Your task to perform on an android device: change timer sound Image 0: 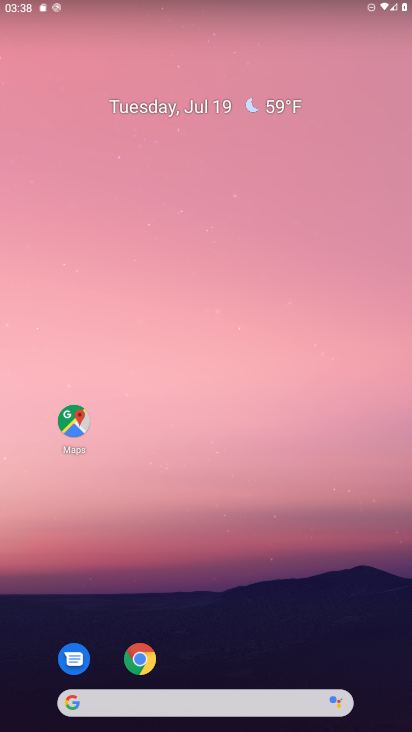
Step 0: drag from (212, 713) to (278, 88)
Your task to perform on an android device: change timer sound Image 1: 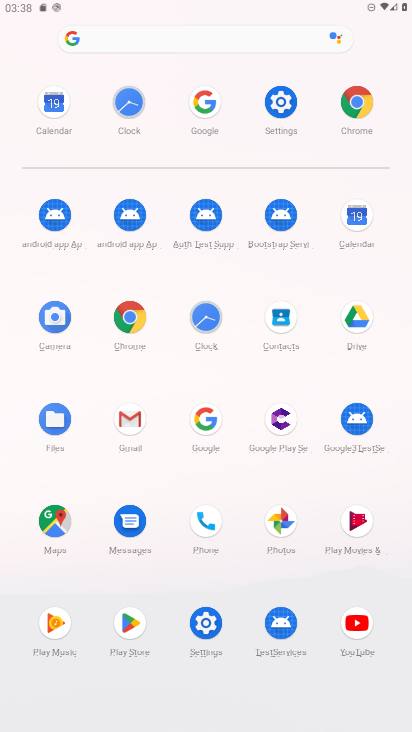
Step 1: click (207, 317)
Your task to perform on an android device: change timer sound Image 2: 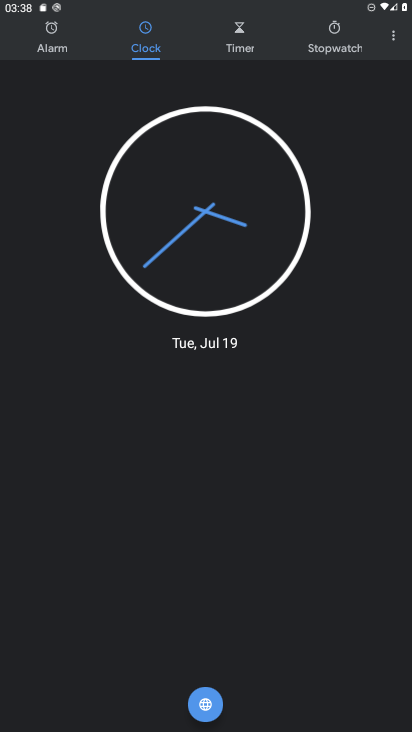
Step 2: click (394, 37)
Your task to perform on an android device: change timer sound Image 3: 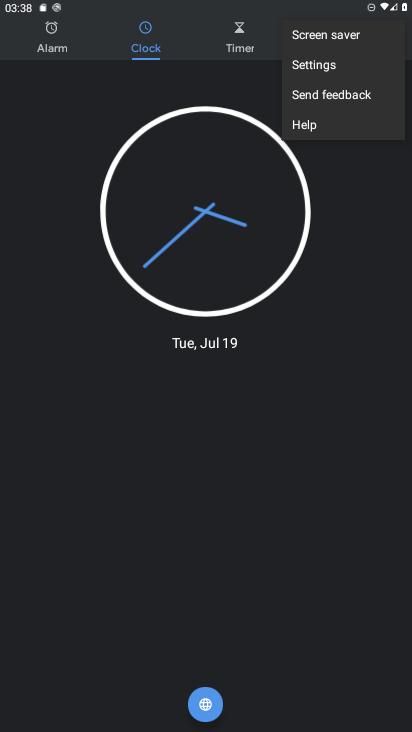
Step 3: click (329, 67)
Your task to perform on an android device: change timer sound Image 4: 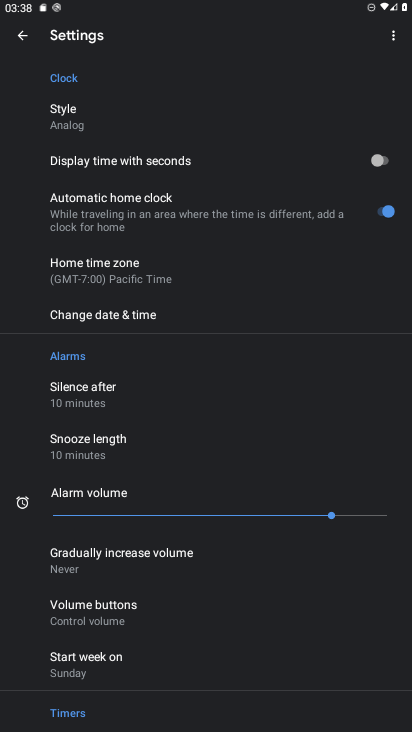
Step 4: drag from (121, 641) to (189, 388)
Your task to perform on an android device: change timer sound Image 5: 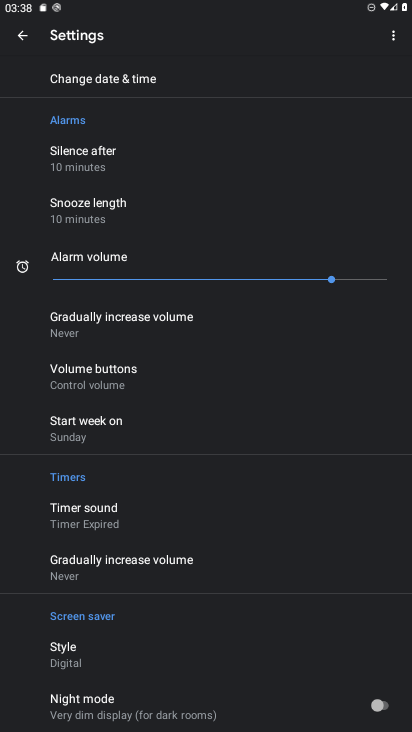
Step 5: click (101, 517)
Your task to perform on an android device: change timer sound Image 6: 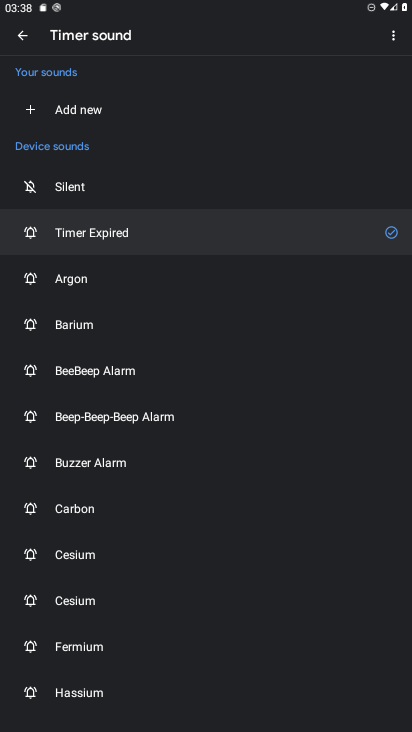
Step 6: drag from (71, 659) to (167, 287)
Your task to perform on an android device: change timer sound Image 7: 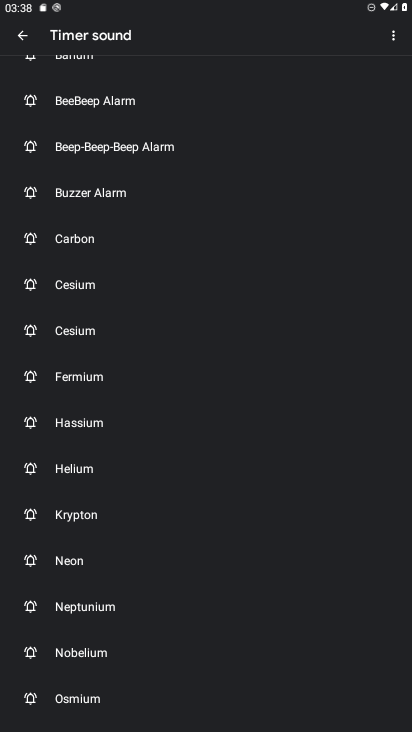
Step 7: click (48, 468)
Your task to perform on an android device: change timer sound Image 8: 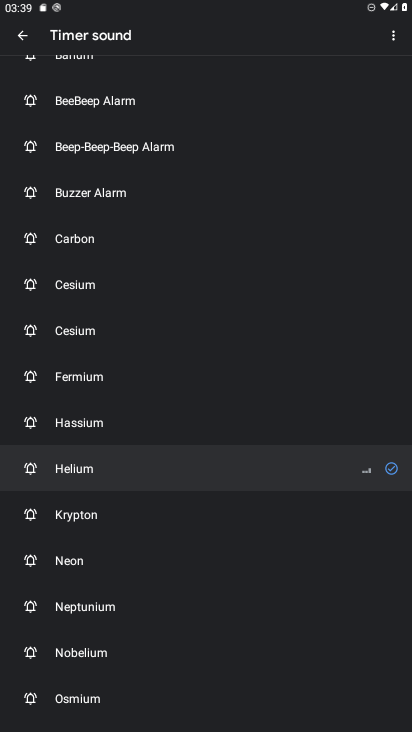
Step 8: task complete